Your task to perform on an android device: Go to Google maps Image 0: 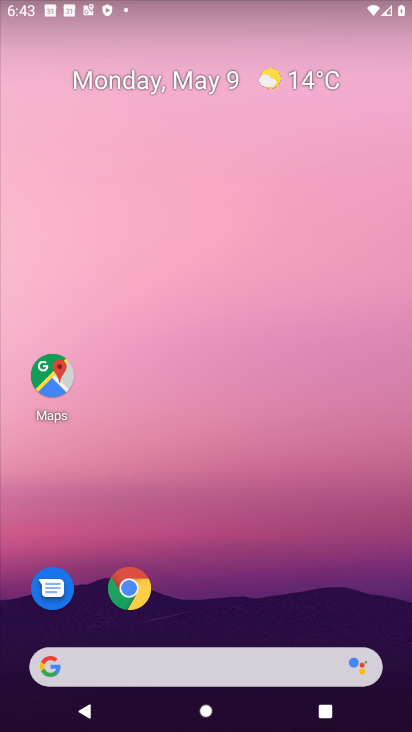
Step 0: drag from (367, 632) to (307, 77)
Your task to perform on an android device: Go to Google maps Image 1: 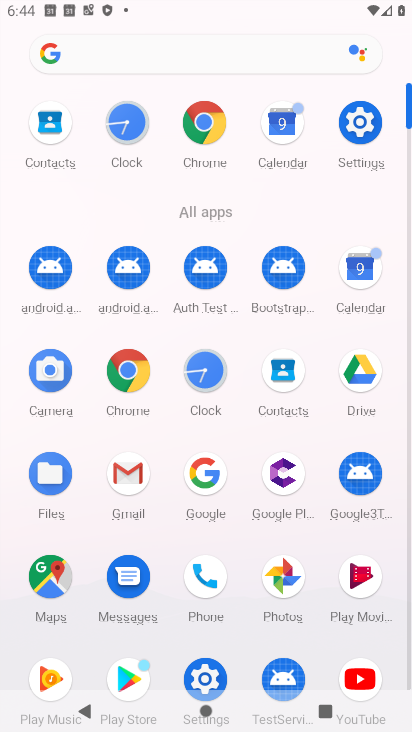
Step 1: click (61, 566)
Your task to perform on an android device: Go to Google maps Image 2: 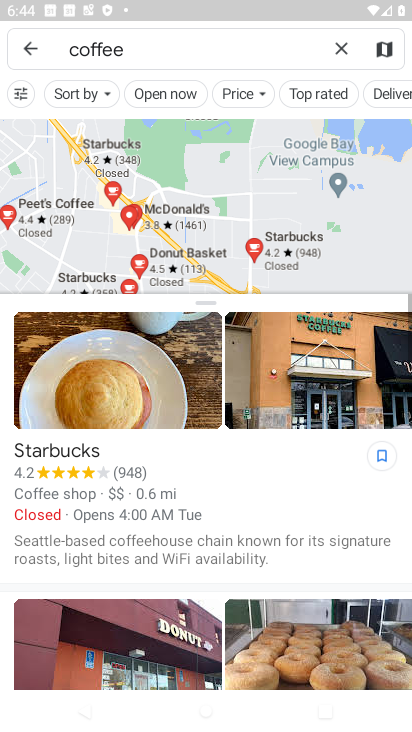
Step 2: click (340, 44)
Your task to perform on an android device: Go to Google maps Image 3: 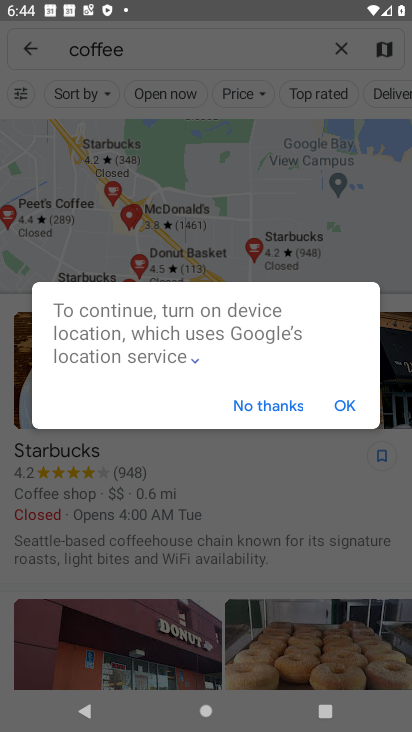
Step 3: click (262, 409)
Your task to perform on an android device: Go to Google maps Image 4: 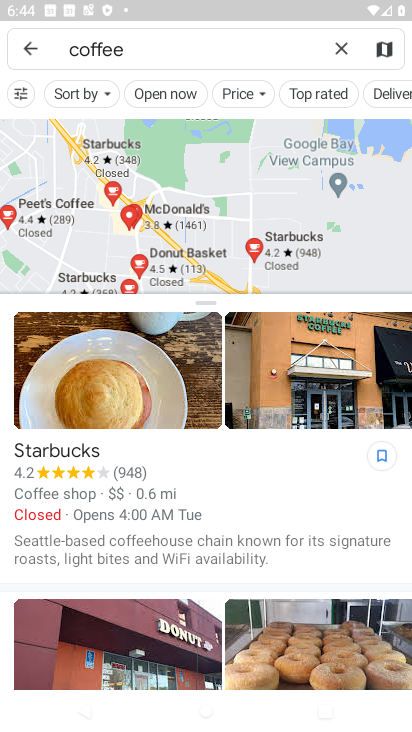
Step 4: click (340, 47)
Your task to perform on an android device: Go to Google maps Image 5: 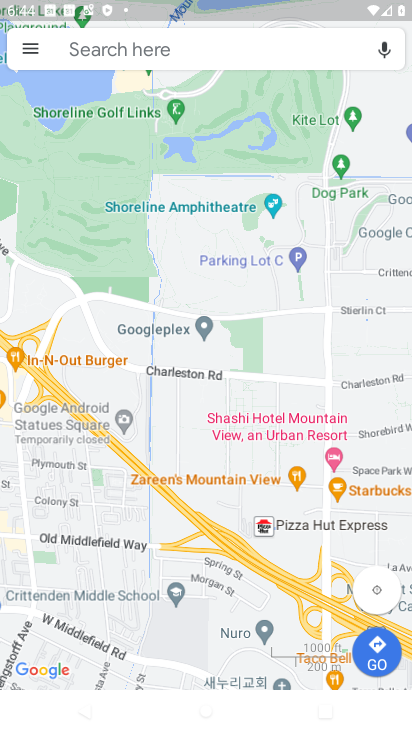
Step 5: task complete